Your task to perform on an android device: turn pop-ups off in chrome Image 0: 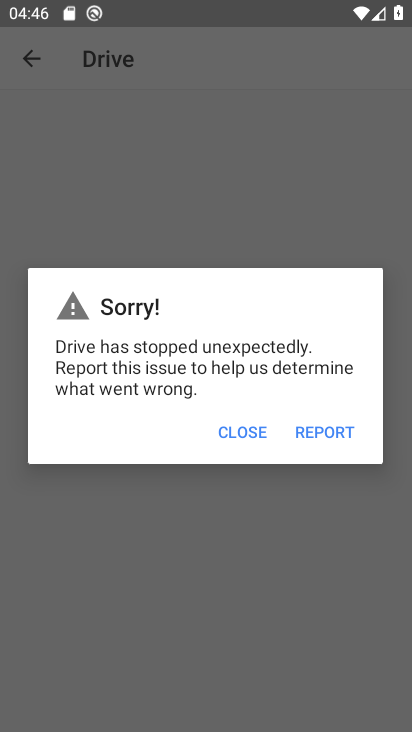
Step 0: press home button
Your task to perform on an android device: turn pop-ups off in chrome Image 1: 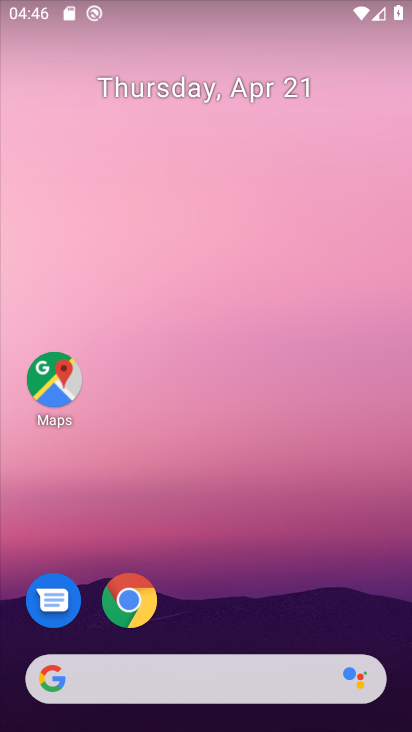
Step 1: click (138, 600)
Your task to perform on an android device: turn pop-ups off in chrome Image 2: 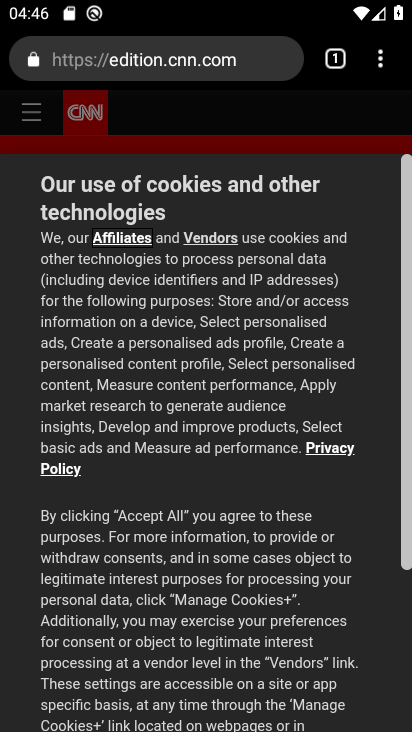
Step 2: click (386, 65)
Your task to perform on an android device: turn pop-ups off in chrome Image 3: 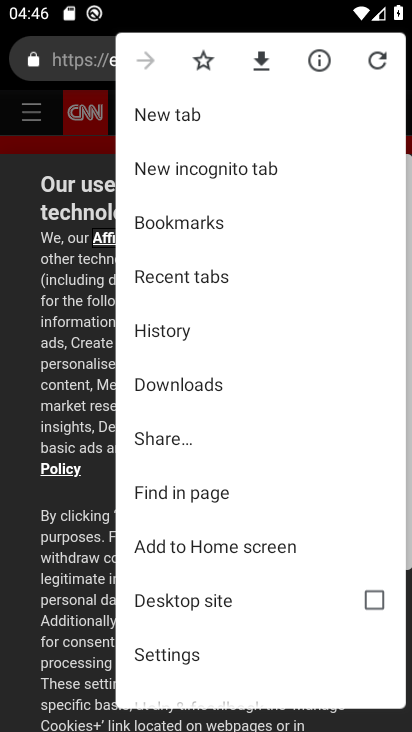
Step 3: click (193, 654)
Your task to perform on an android device: turn pop-ups off in chrome Image 4: 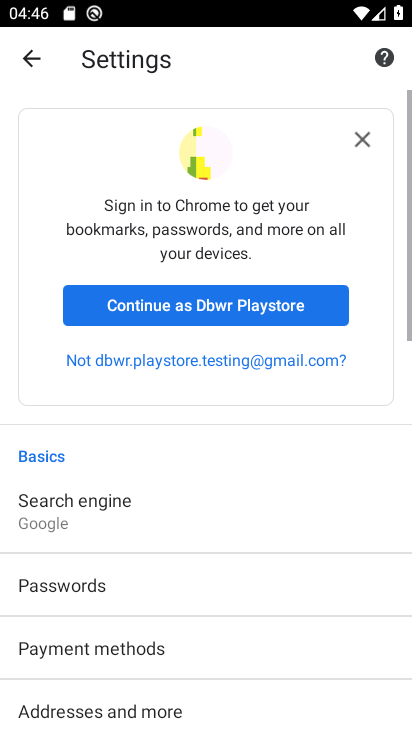
Step 4: drag from (250, 659) to (263, 100)
Your task to perform on an android device: turn pop-ups off in chrome Image 5: 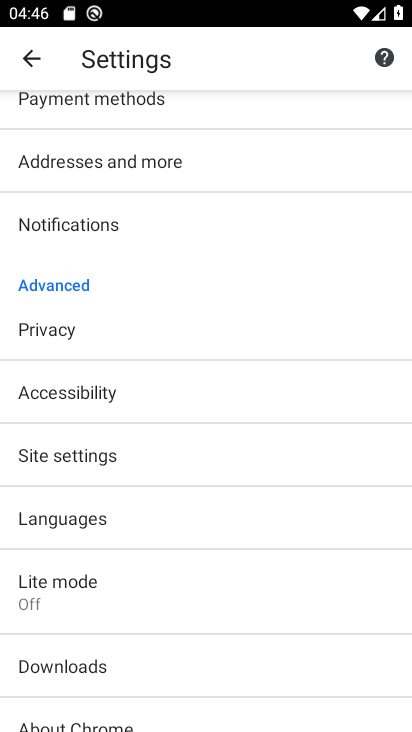
Step 5: drag from (215, 508) to (199, 159)
Your task to perform on an android device: turn pop-ups off in chrome Image 6: 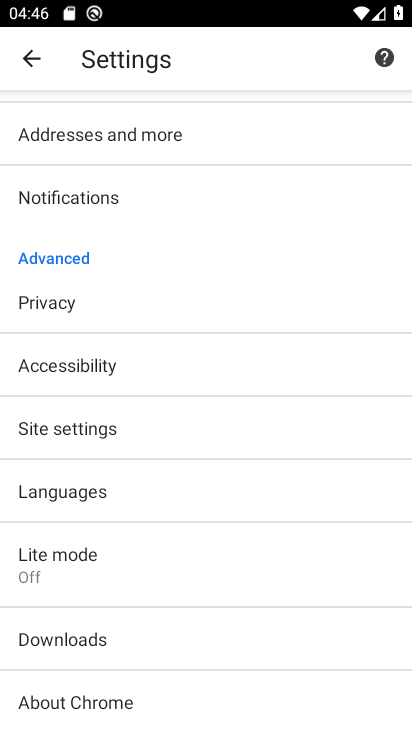
Step 6: click (62, 431)
Your task to perform on an android device: turn pop-ups off in chrome Image 7: 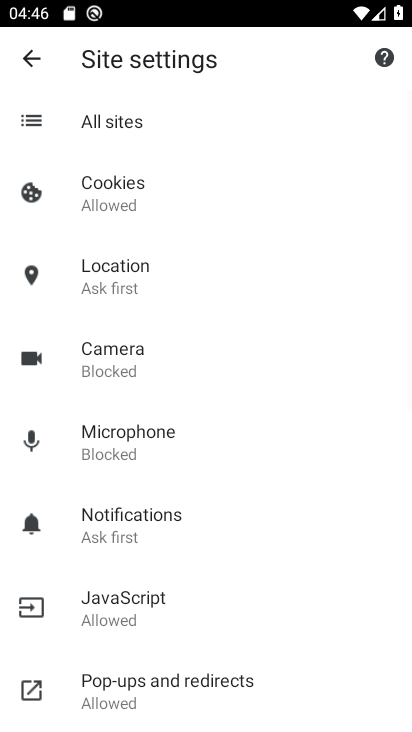
Step 7: click (143, 683)
Your task to perform on an android device: turn pop-ups off in chrome Image 8: 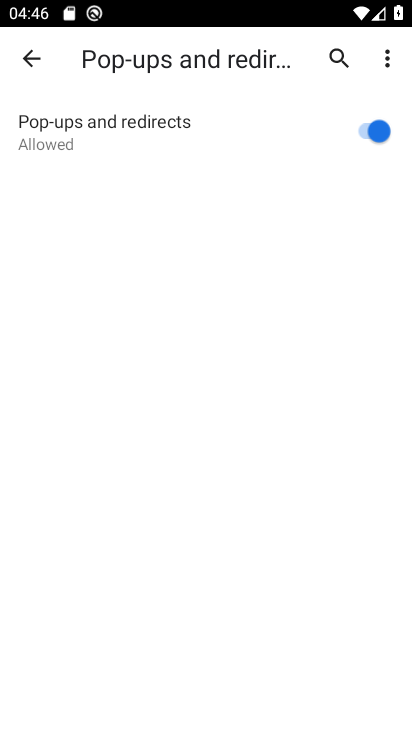
Step 8: click (368, 132)
Your task to perform on an android device: turn pop-ups off in chrome Image 9: 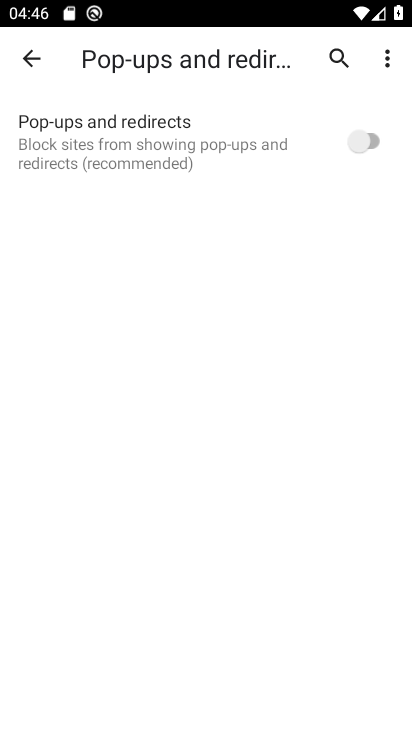
Step 9: task complete